Your task to perform on an android device: Go to accessibility settings Image 0: 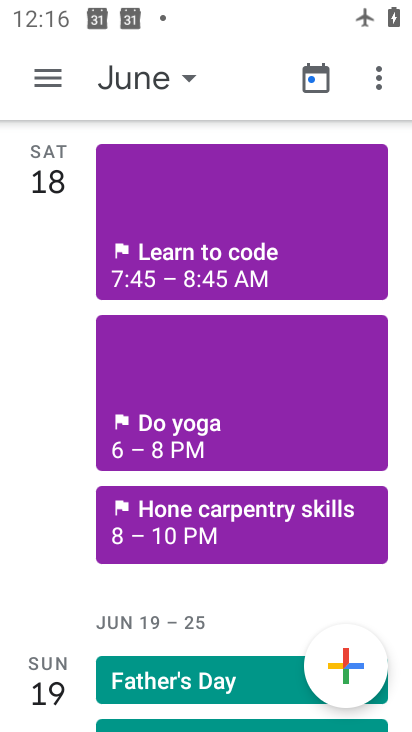
Step 0: press home button
Your task to perform on an android device: Go to accessibility settings Image 1: 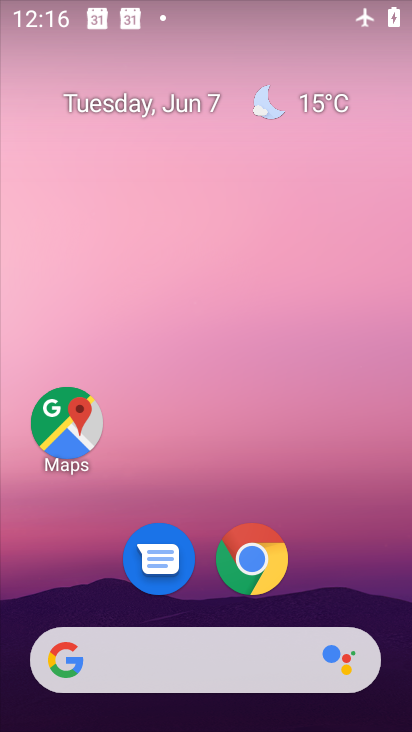
Step 1: drag from (384, 590) to (384, 92)
Your task to perform on an android device: Go to accessibility settings Image 2: 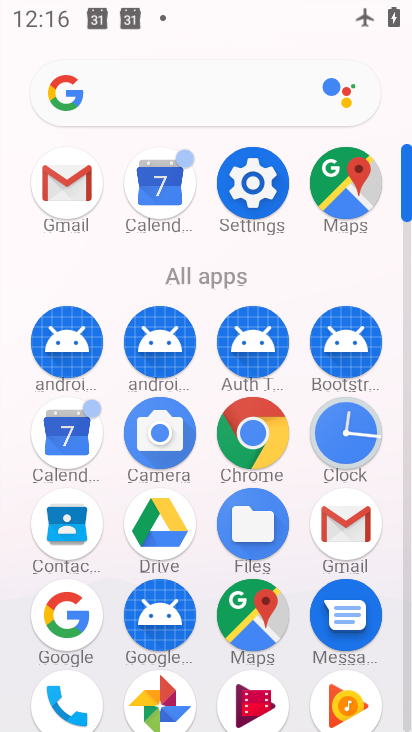
Step 2: click (410, 680)
Your task to perform on an android device: Go to accessibility settings Image 3: 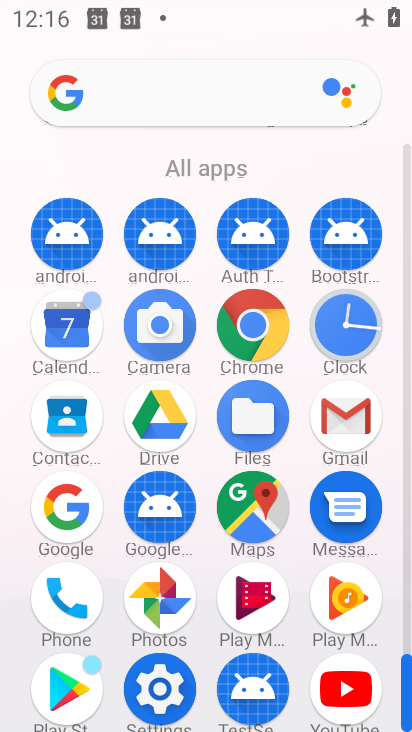
Step 3: click (161, 687)
Your task to perform on an android device: Go to accessibility settings Image 4: 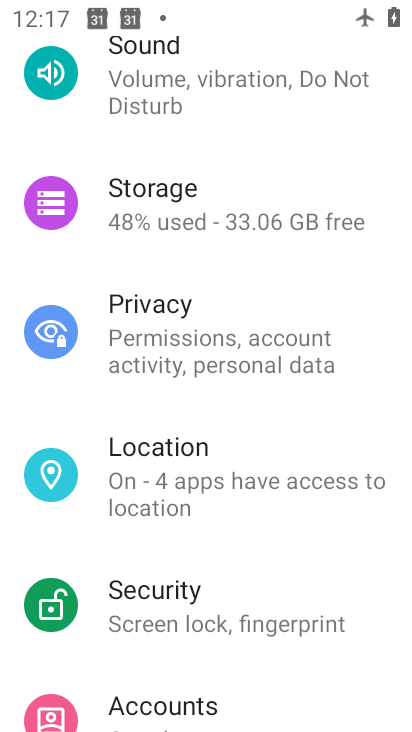
Step 4: drag from (342, 686) to (341, 267)
Your task to perform on an android device: Go to accessibility settings Image 5: 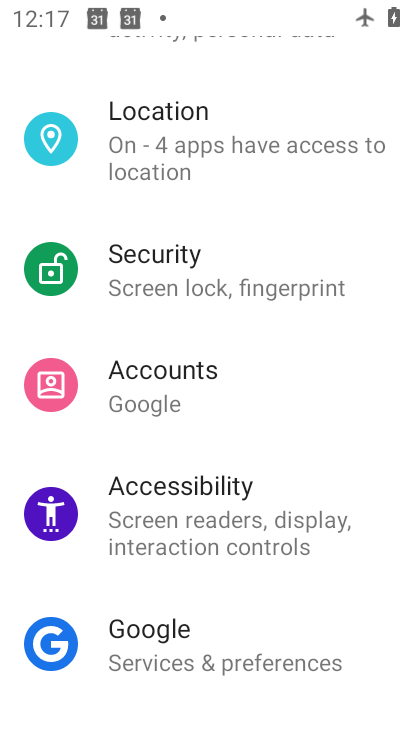
Step 5: click (155, 508)
Your task to perform on an android device: Go to accessibility settings Image 6: 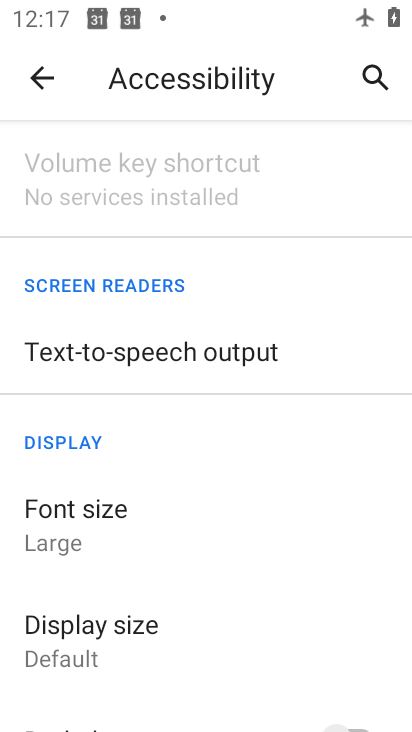
Step 6: task complete